Your task to perform on an android device: What is the news today? Image 0: 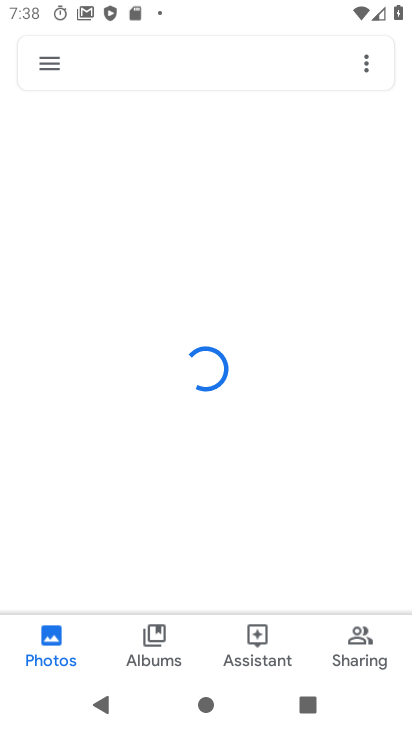
Step 0: press home button
Your task to perform on an android device: What is the news today? Image 1: 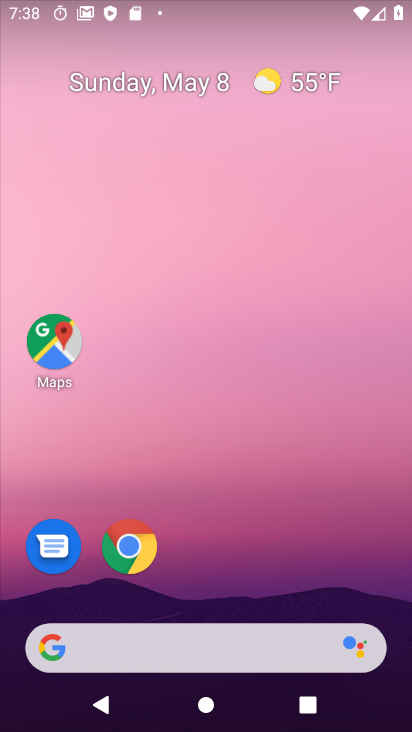
Step 1: click (235, 657)
Your task to perform on an android device: What is the news today? Image 2: 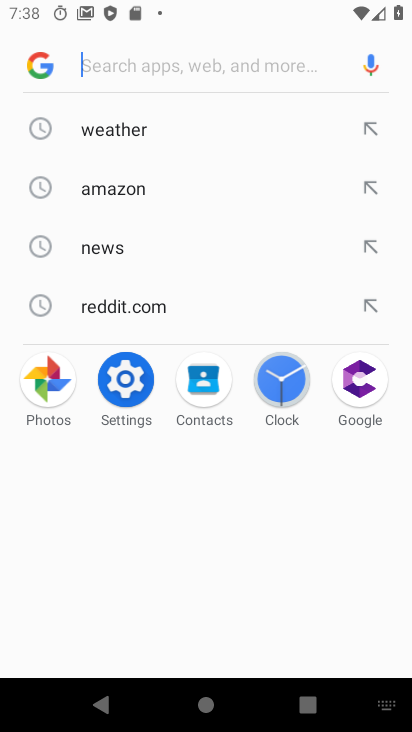
Step 2: click (113, 244)
Your task to perform on an android device: What is the news today? Image 3: 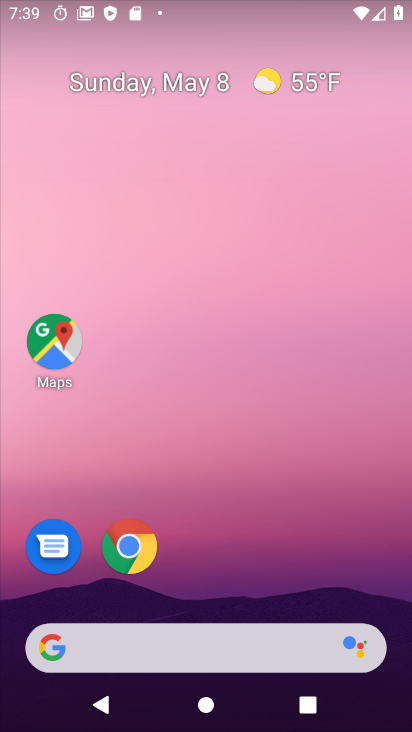
Step 3: click (198, 652)
Your task to perform on an android device: What is the news today? Image 4: 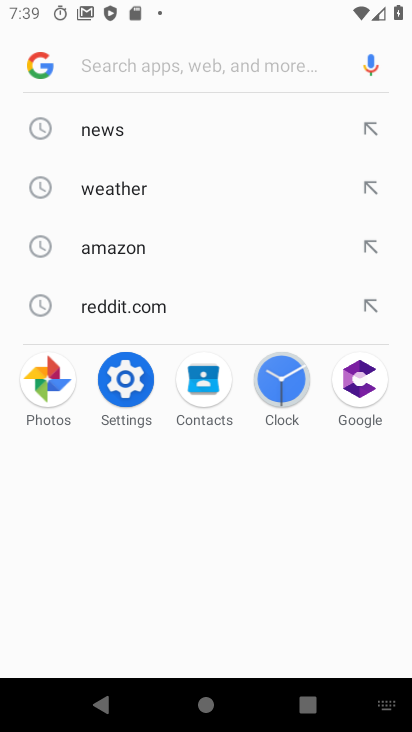
Step 4: click (115, 129)
Your task to perform on an android device: What is the news today? Image 5: 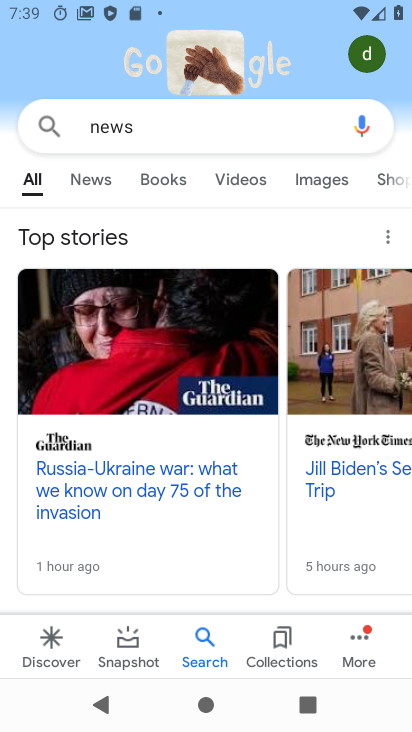
Step 5: click (92, 167)
Your task to perform on an android device: What is the news today? Image 6: 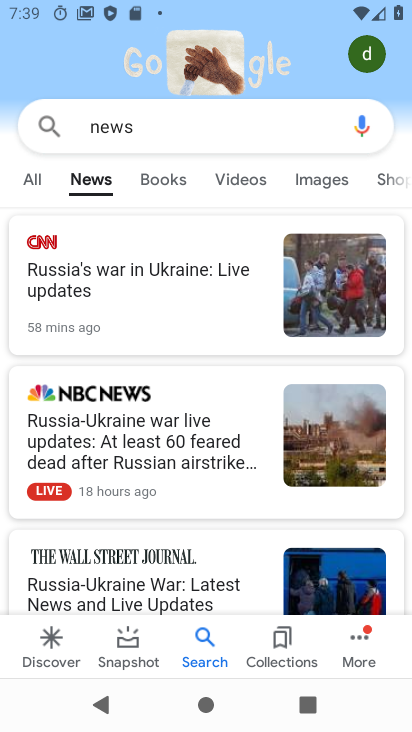
Step 6: task complete